Your task to perform on an android device: Go to Reddit.com Image 0: 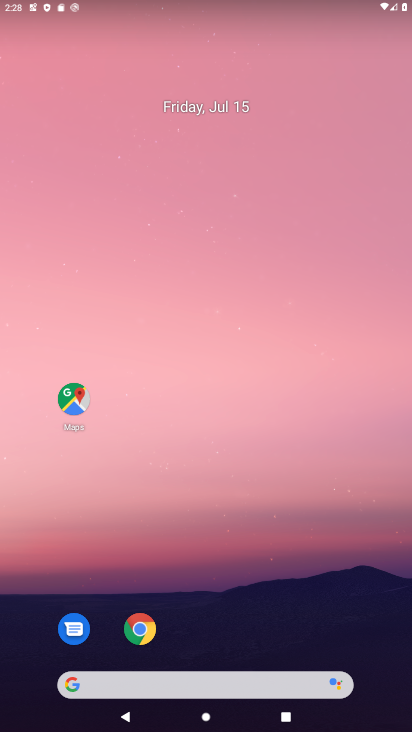
Step 0: drag from (221, 638) to (235, 182)
Your task to perform on an android device: Go to Reddit.com Image 1: 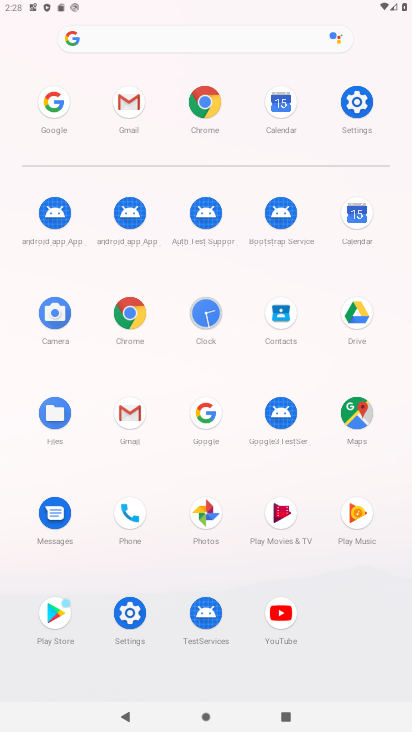
Step 1: click (128, 311)
Your task to perform on an android device: Go to Reddit.com Image 2: 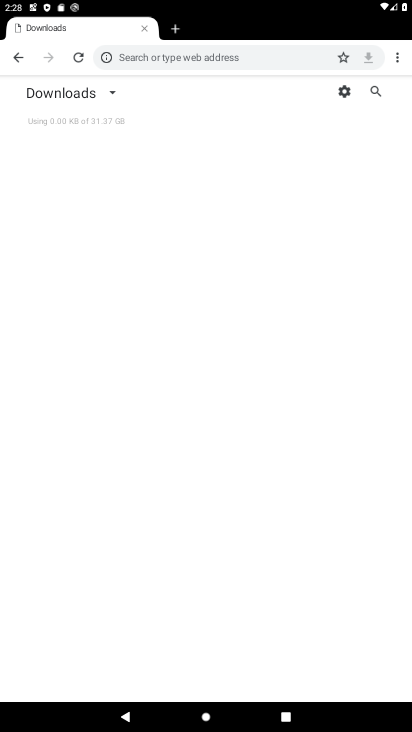
Step 2: click (257, 56)
Your task to perform on an android device: Go to Reddit.com Image 3: 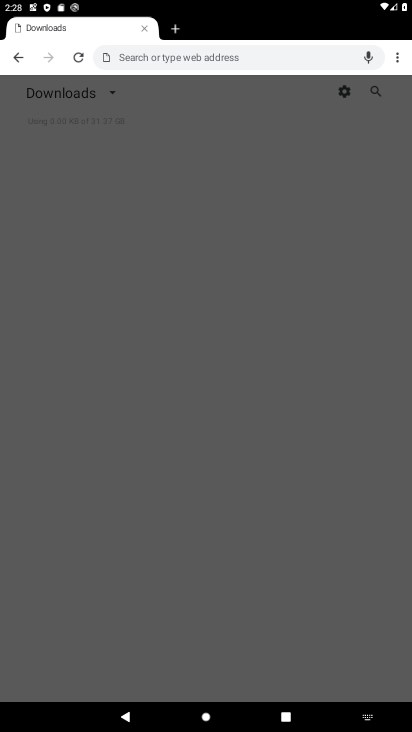
Step 3: type "reddit.com"
Your task to perform on an android device: Go to Reddit.com Image 4: 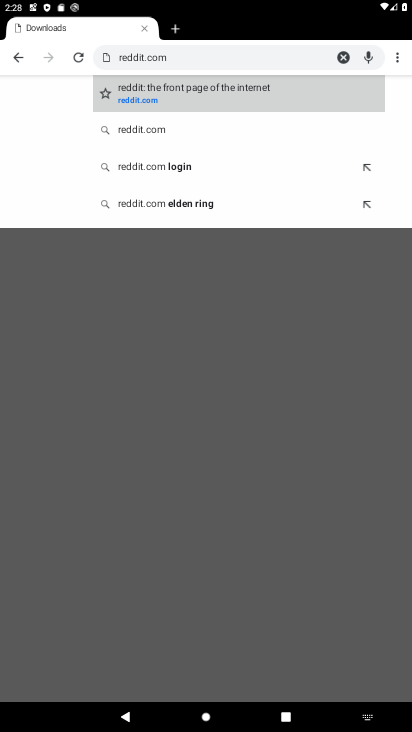
Step 4: click (245, 90)
Your task to perform on an android device: Go to Reddit.com Image 5: 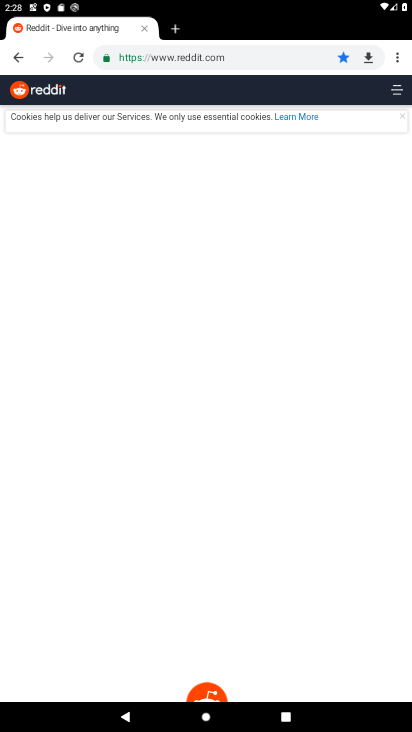
Step 5: task complete